Your task to perform on an android device: When is my next meeting? Image 0: 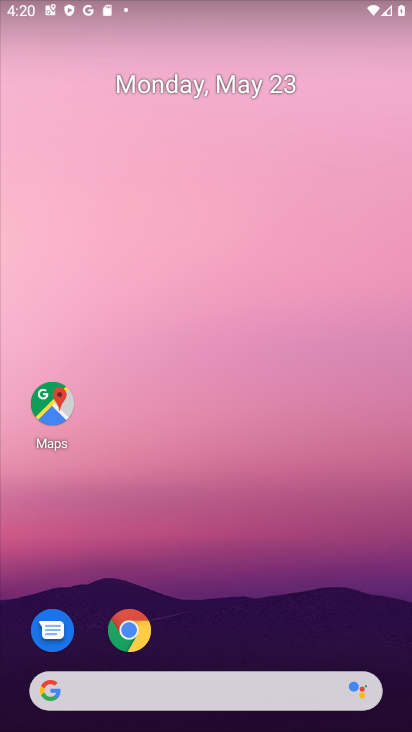
Step 0: drag from (217, 651) to (255, 130)
Your task to perform on an android device: When is my next meeting? Image 1: 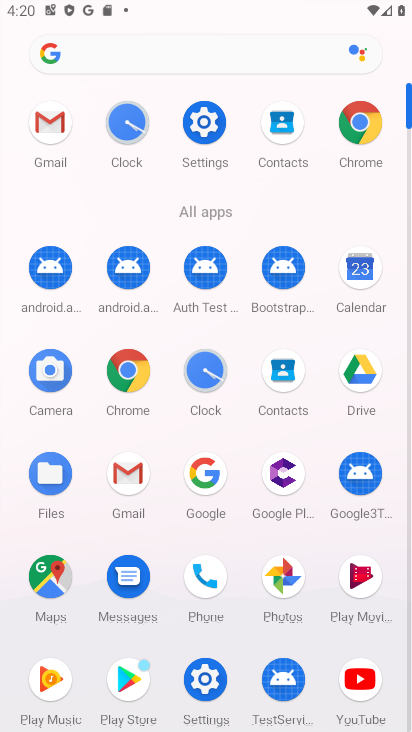
Step 1: click (360, 270)
Your task to perform on an android device: When is my next meeting? Image 2: 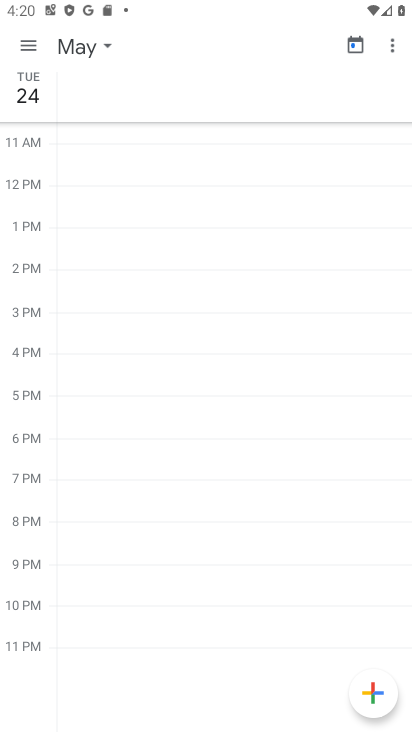
Step 2: click (35, 105)
Your task to perform on an android device: When is my next meeting? Image 3: 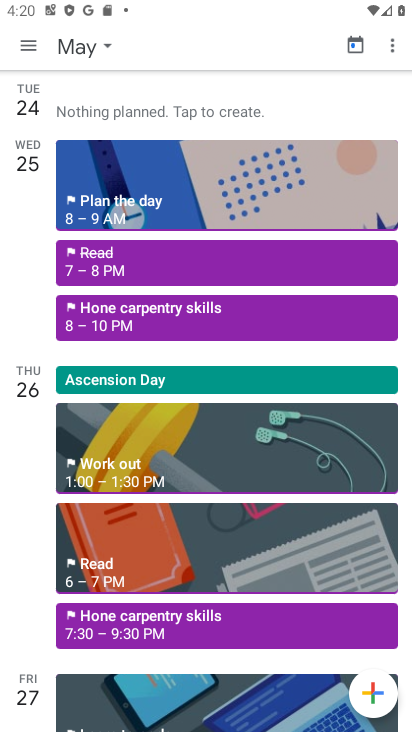
Step 3: task complete